Your task to perform on an android device: turn pop-ups on in chrome Image 0: 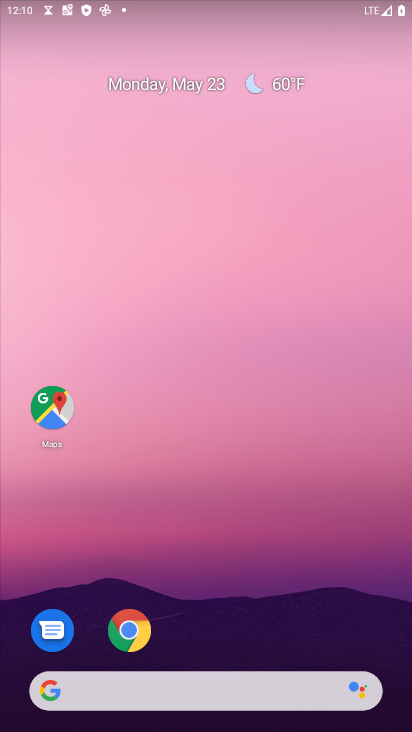
Step 0: click (131, 629)
Your task to perform on an android device: turn pop-ups on in chrome Image 1: 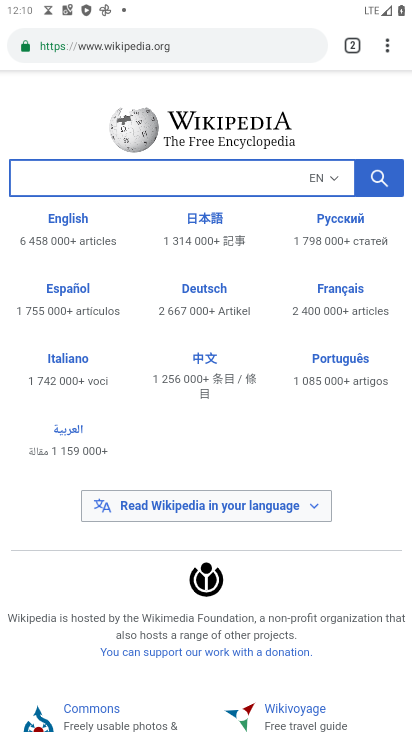
Step 1: click (387, 45)
Your task to perform on an android device: turn pop-ups on in chrome Image 2: 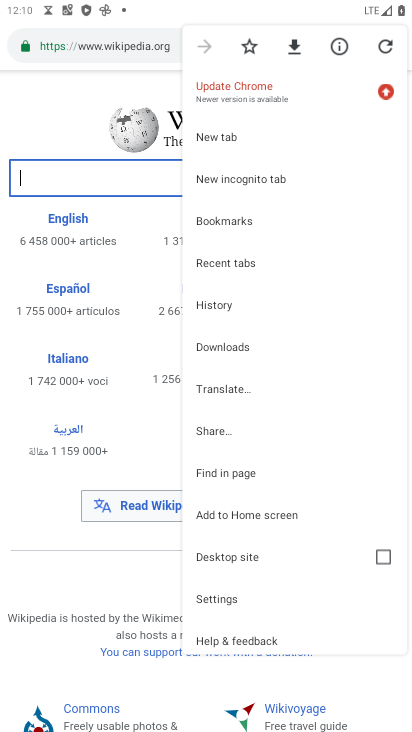
Step 2: click (219, 601)
Your task to perform on an android device: turn pop-ups on in chrome Image 3: 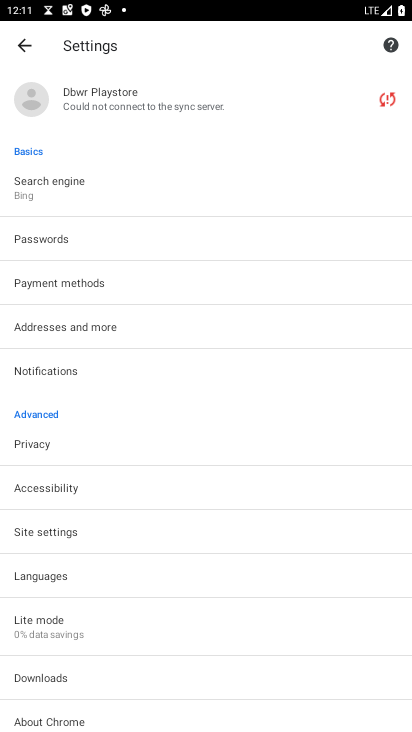
Step 3: click (66, 533)
Your task to perform on an android device: turn pop-ups on in chrome Image 4: 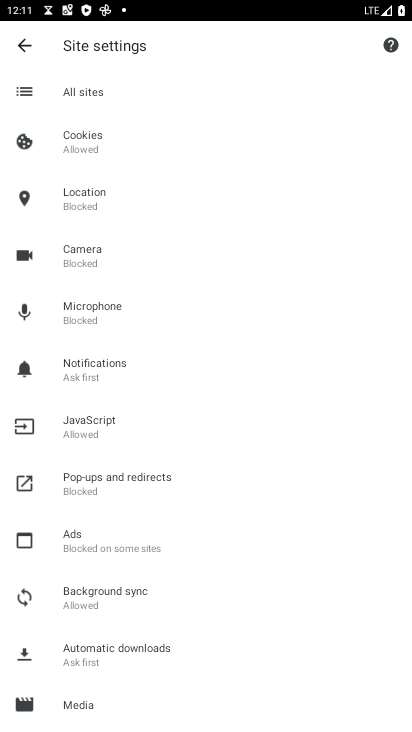
Step 4: click (141, 484)
Your task to perform on an android device: turn pop-ups on in chrome Image 5: 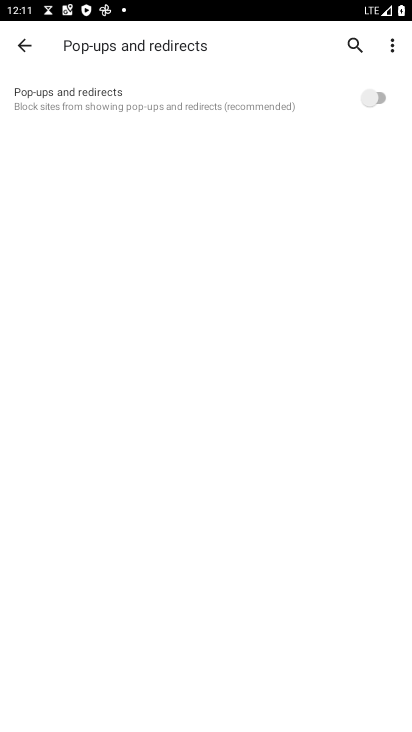
Step 5: click (378, 99)
Your task to perform on an android device: turn pop-ups on in chrome Image 6: 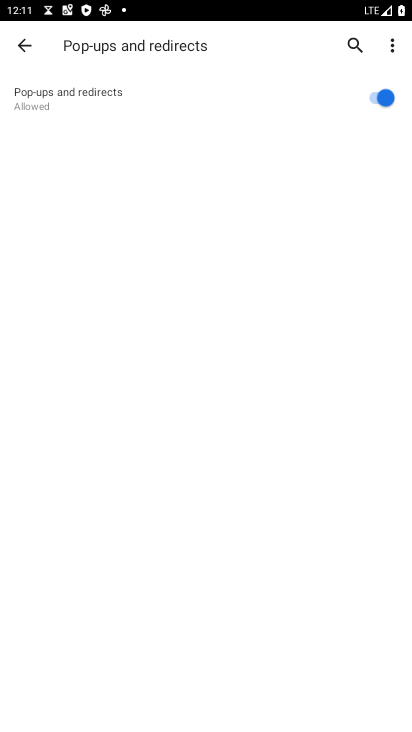
Step 6: task complete